Your task to perform on an android device: choose inbox layout in the gmail app Image 0: 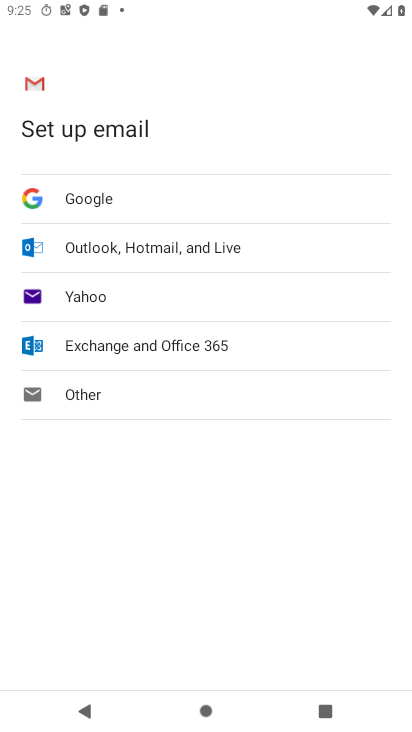
Step 0: press home button
Your task to perform on an android device: choose inbox layout in the gmail app Image 1: 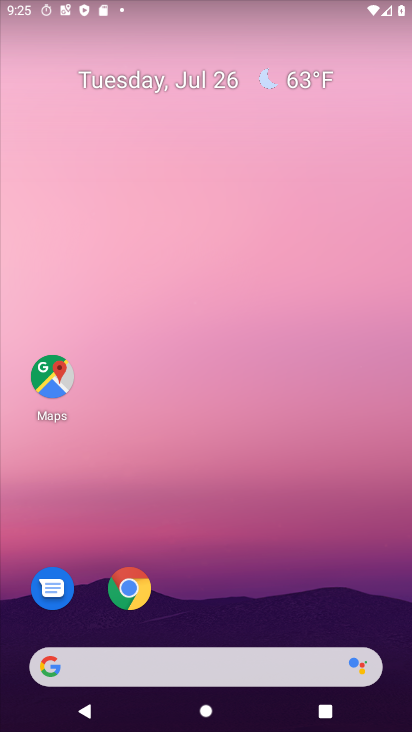
Step 1: drag from (179, 597) to (194, 38)
Your task to perform on an android device: choose inbox layout in the gmail app Image 2: 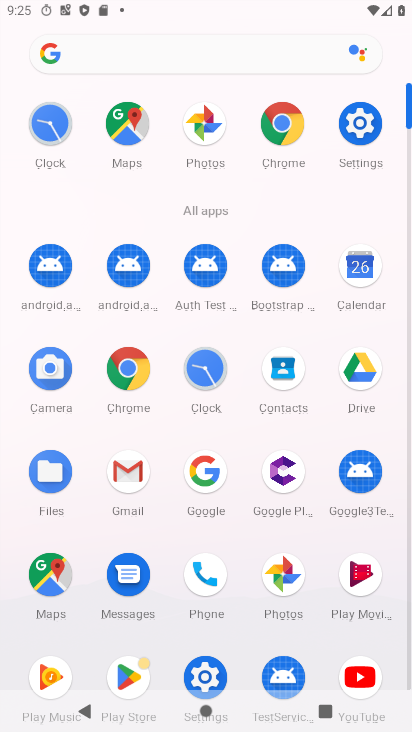
Step 2: click (132, 469)
Your task to perform on an android device: choose inbox layout in the gmail app Image 3: 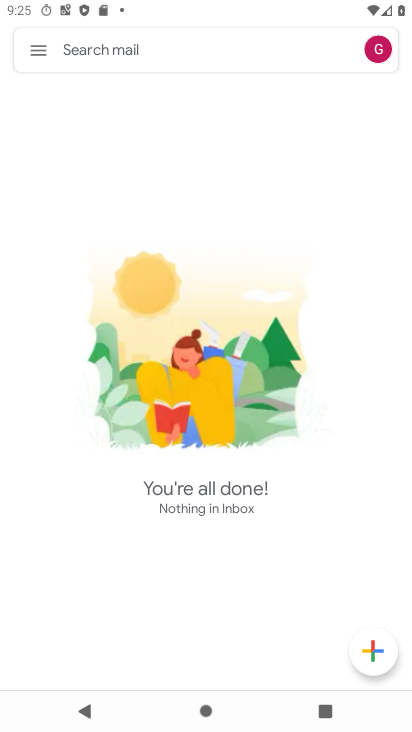
Step 3: click (49, 56)
Your task to perform on an android device: choose inbox layout in the gmail app Image 4: 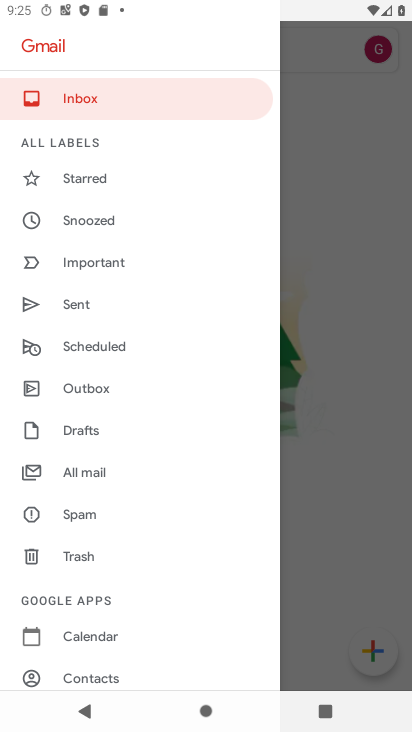
Step 4: drag from (128, 657) to (201, 213)
Your task to perform on an android device: choose inbox layout in the gmail app Image 5: 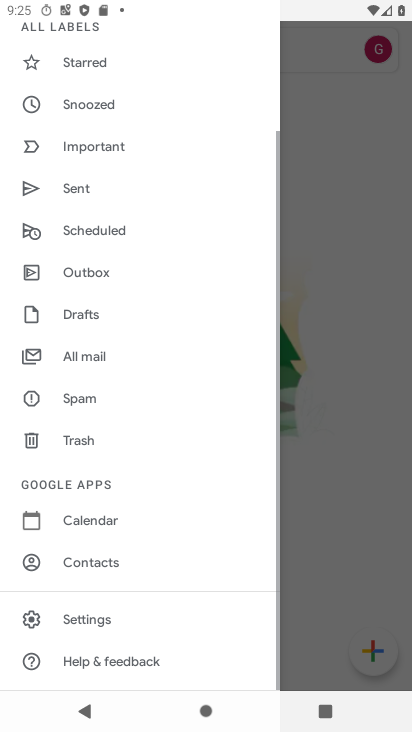
Step 5: click (134, 621)
Your task to perform on an android device: choose inbox layout in the gmail app Image 6: 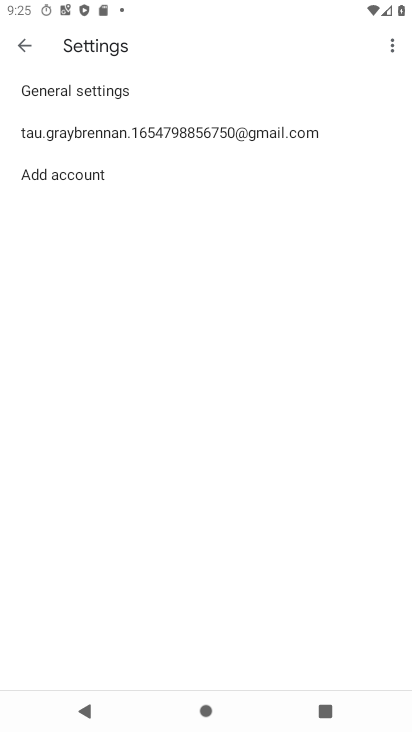
Step 6: click (327, 133)
Your task to perform on an android device: choose inbox layout in the gmail app Image 7: 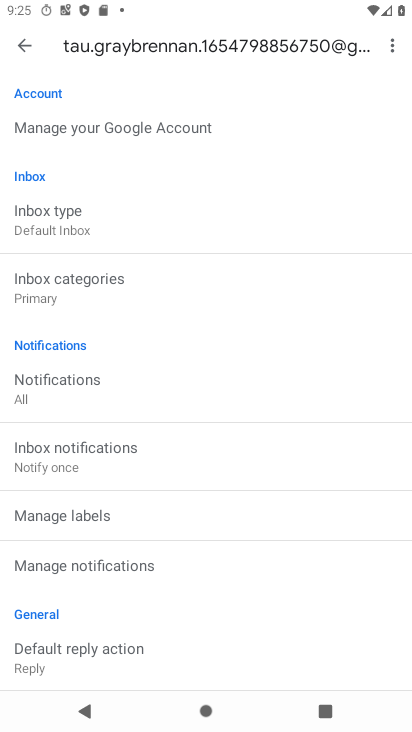
Step 7: click (154, 214)
Your task to perform on an android device: choose inbox layout in the gmail app Image 8: 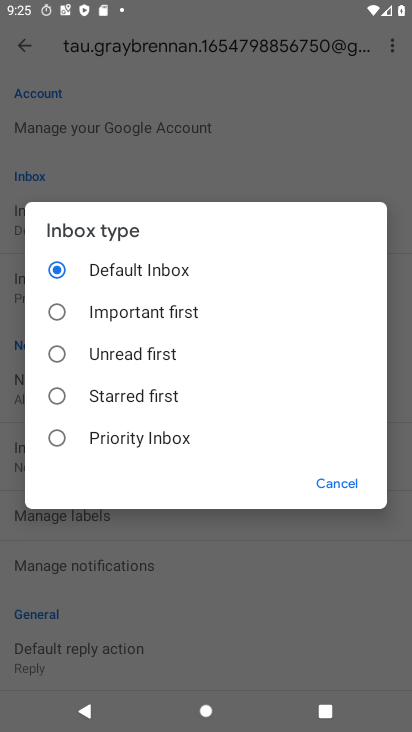
Step 8: click (184, 343)
Your task to perform on an android device: choose inbox layout in the gmail app Image 9: 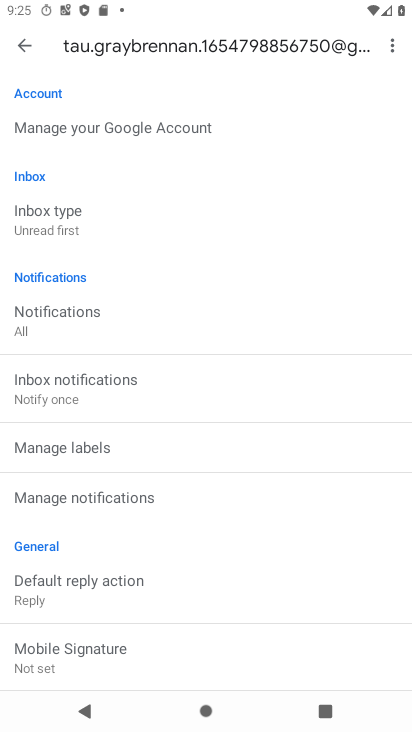
Step 9: task complete